Your task to perform on an android device: install app "Truecaller" Image 0: 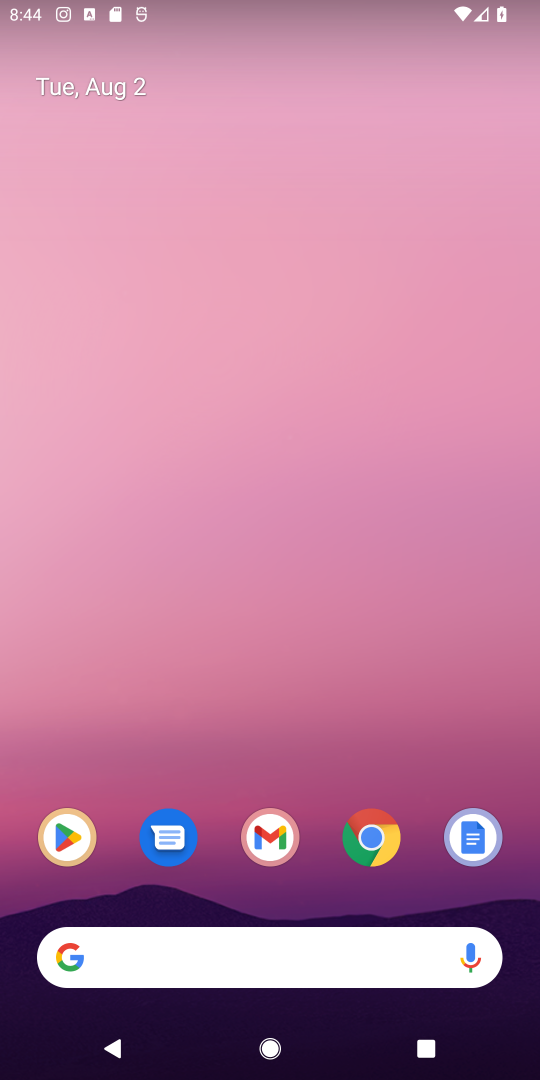
Step 0: click (63, 836)
Your task to perform on an android device: install app "Truecaller" Image 1: 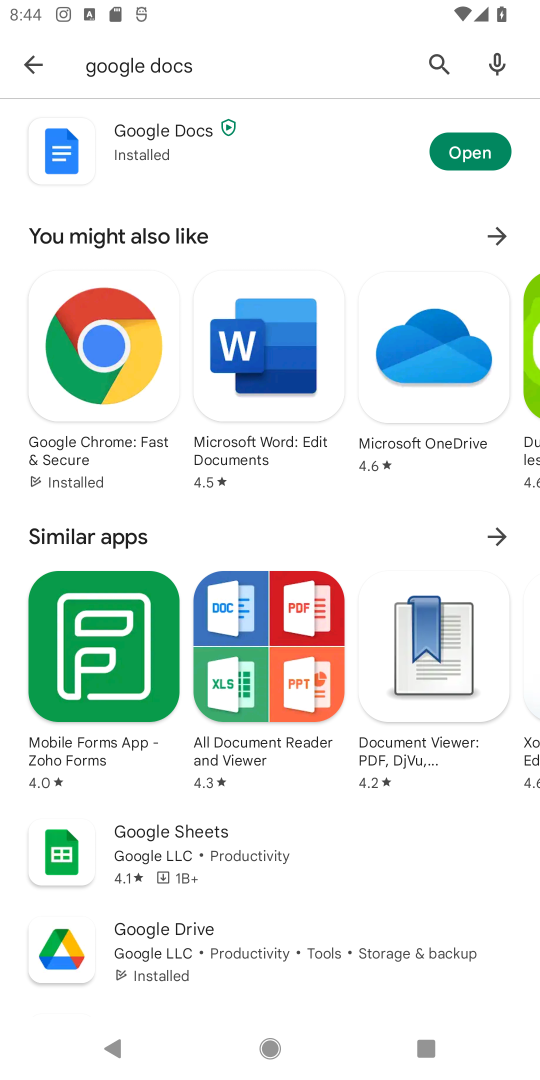
Step 1: click (423, 63)
Your task to perform on an android device: install app "Truecaller" Image 2: 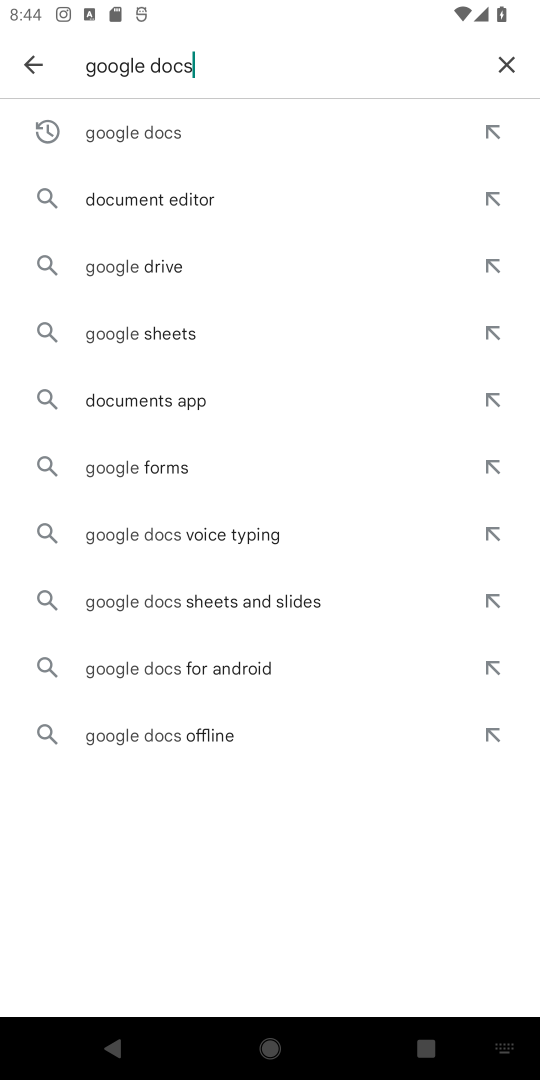
Step 2: click (514, 63)
Your task to perform on an android device: install app "Truecaller" Image 3: 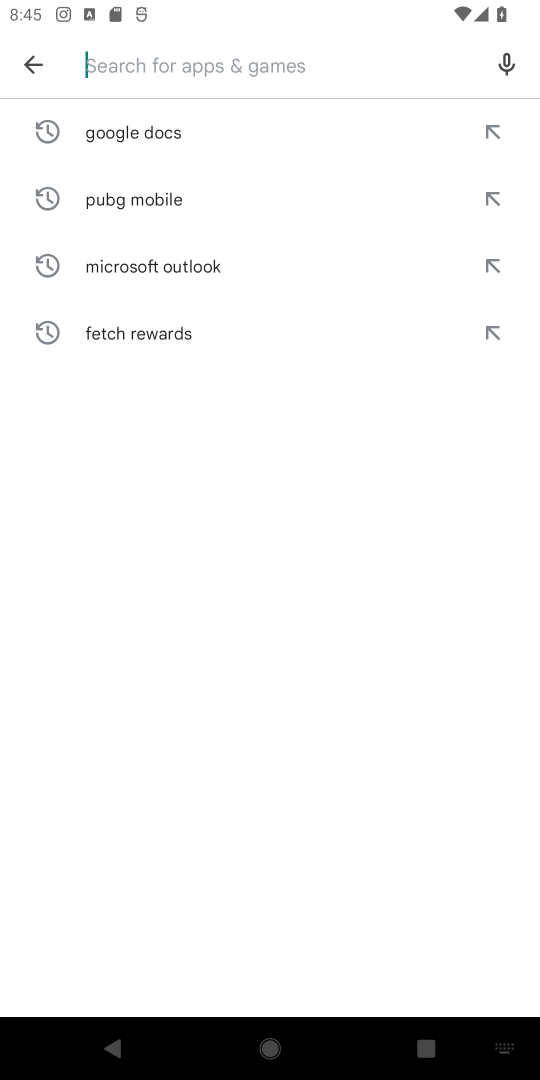
Step 3: type "Truecaller"
Your task to perform on an android device: install app "Truecaller" Image 4: 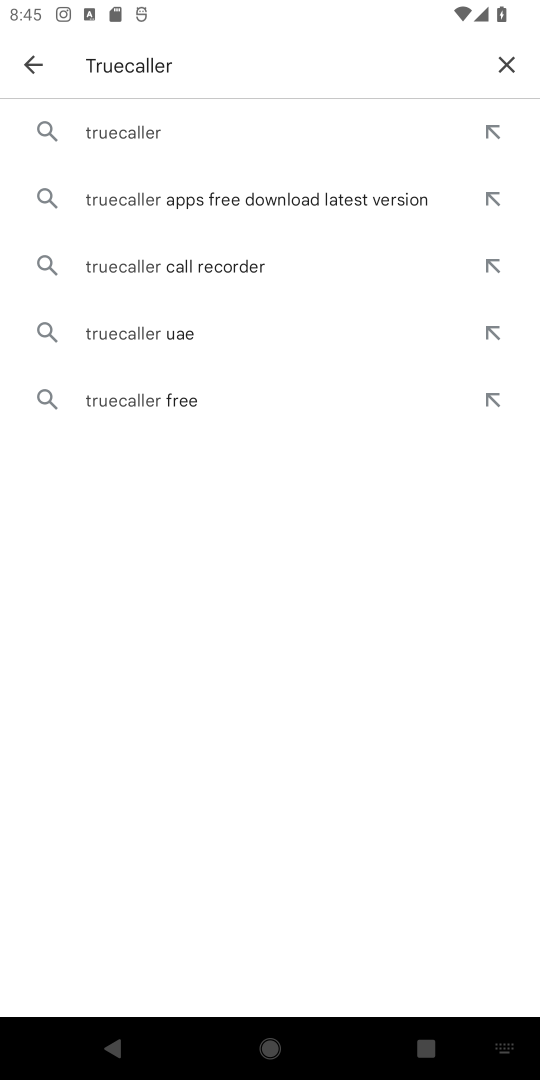
Step 4: click (158, 142)
Your task to perform on an android device: install app "Truecaller" Image 5: 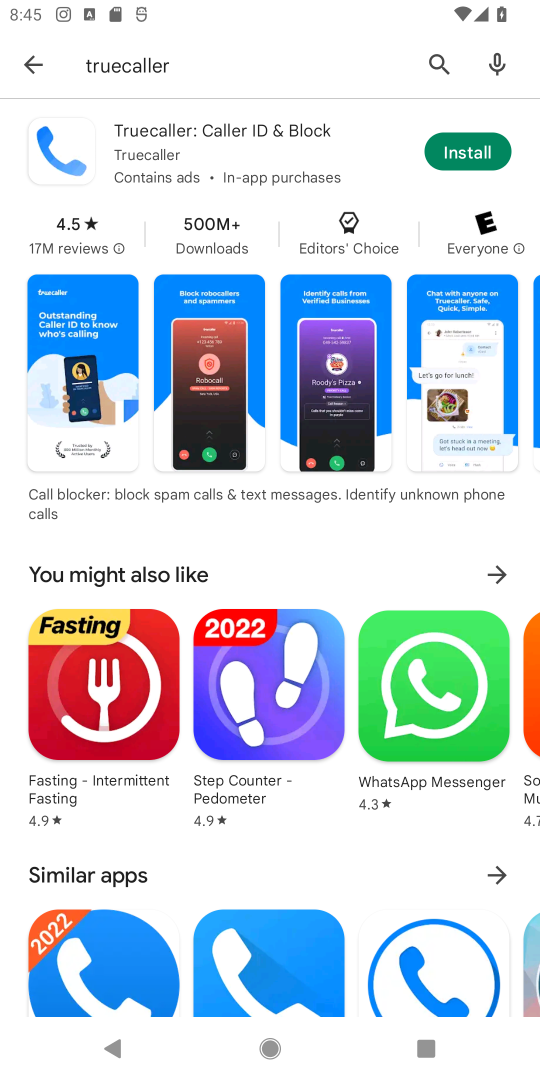
Step 5: click (489, 158)
Your task to perform on an android device: install app "Truecaller" Image 6: 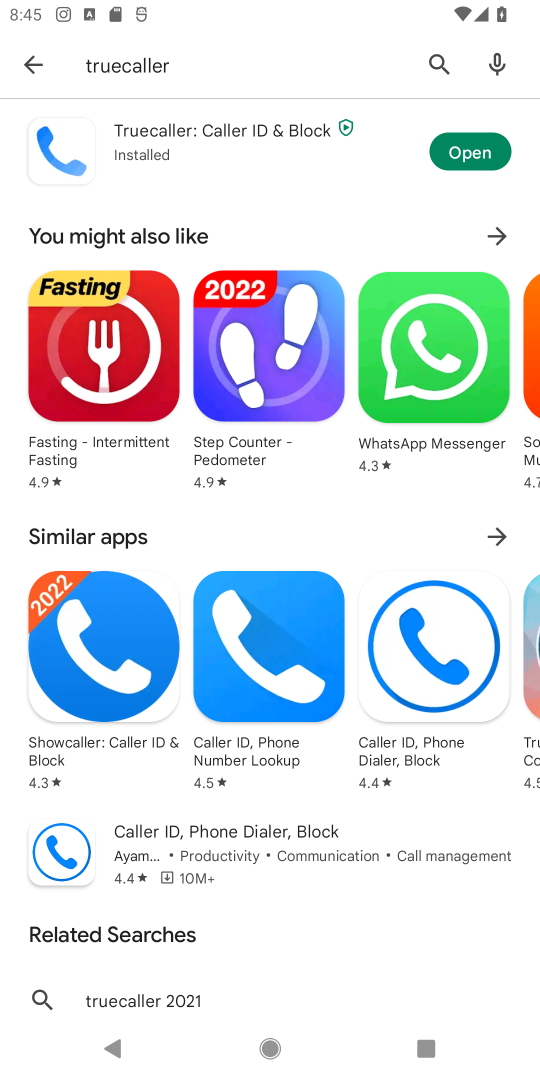
Step 6: task complete